Your task to perform on an android device: check google app version Image 0: 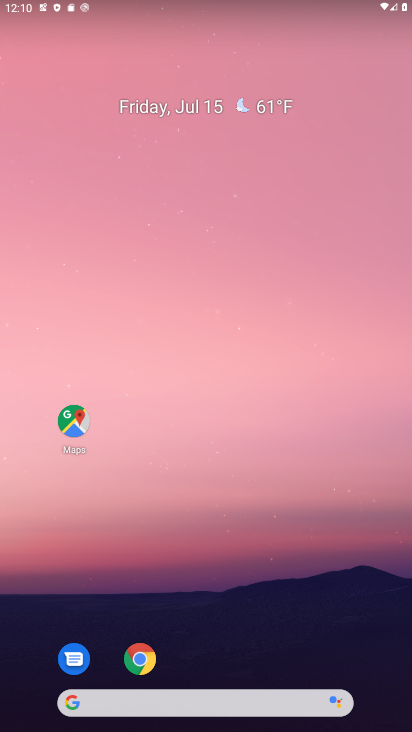
Step 0: drag from (218, 702) to (241, 155)
Your task to perform on an android device: check google app version Image 1: 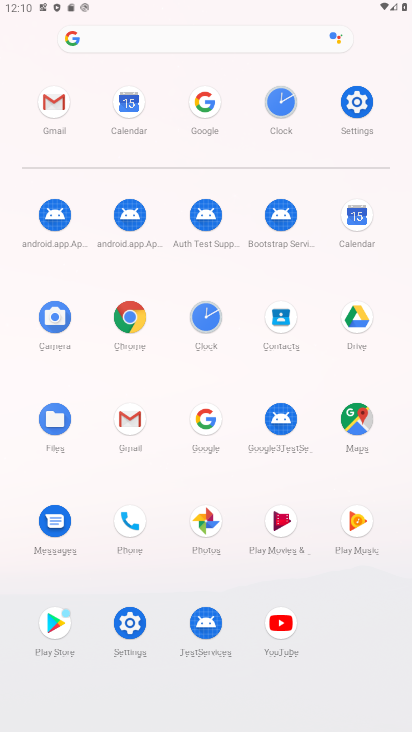
Step 1: click (207, 414)
Your task to perform on an android device: check google app version Image 2: 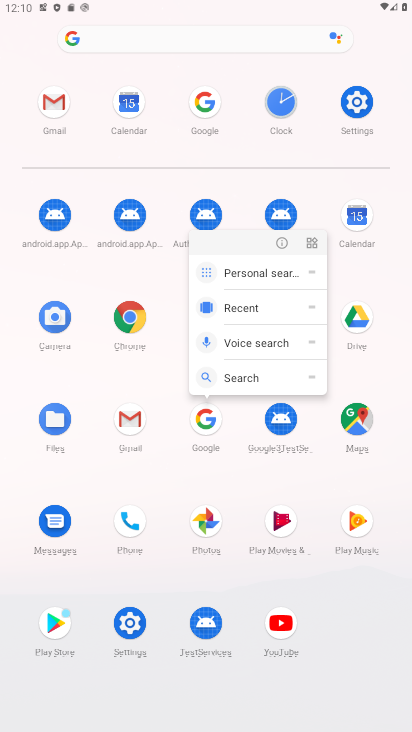
Step 2: click (282, 247)
Your task to perform on an android device: check google app version Image 3: 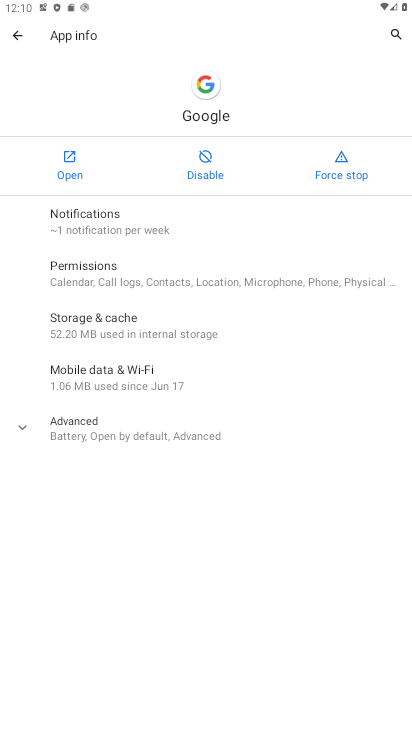
Step 3: click (147, 429)
Your task to perform on an android device: check google app version Image 4: 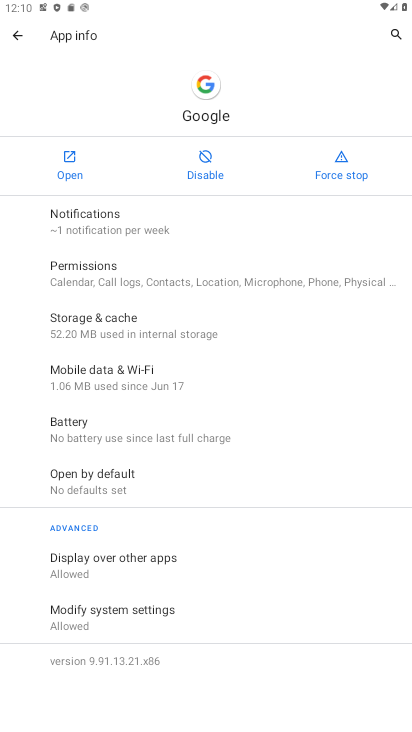
Step 4: task complete